Your task to perform on an android device: What's on my calendar tomorrow? Image 0: 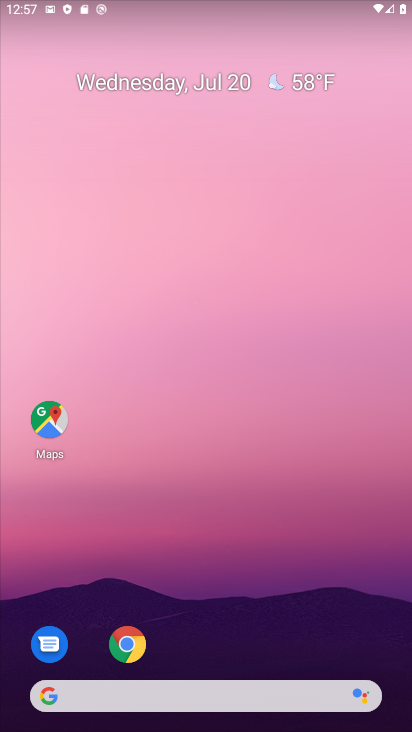
Step 0: drag from (193, 652) to (218, 35)
Your task to perform on an android device: What's on my calendar tomorrow? Image 1: 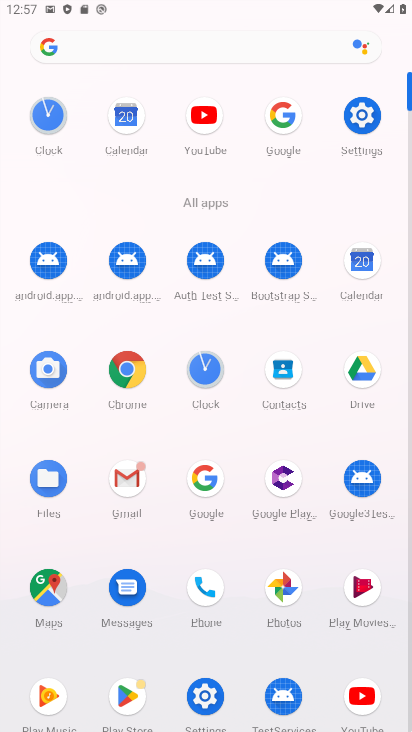
Step 1: click (363, 264)
Your task to perform on an android device: What's on my calendar tomorrow? Image 2: 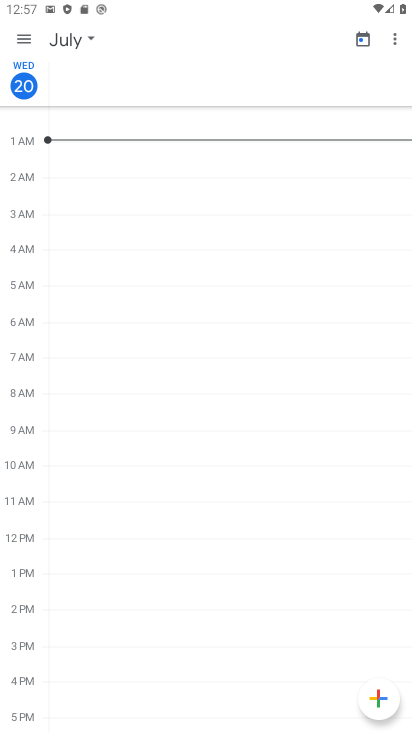
Step 2: click (81, 35)
Your task to perform on an android device: What's on my calendar tomorrow? Image 3: 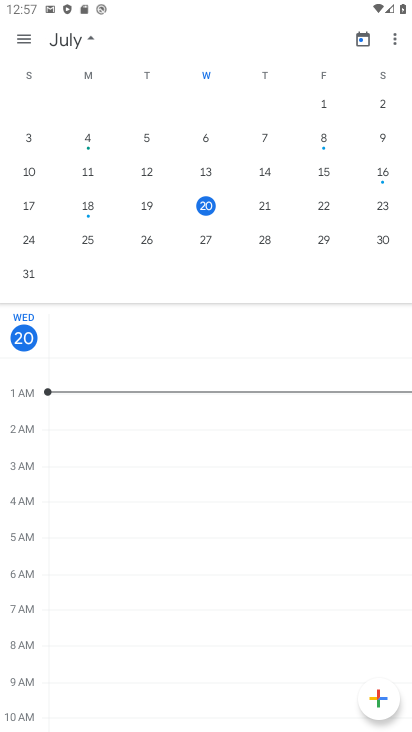
Step 3: click (23, 42)
Your task to perform on an android device: What's on my calendar tomorrow? Image 4: 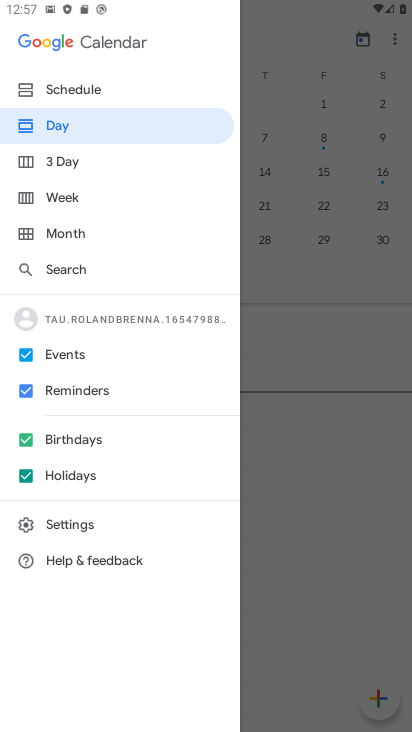
Step 4: click (58, 93)
Your task to perform on an android device: What's on my calendar tomorrow? Image 5: 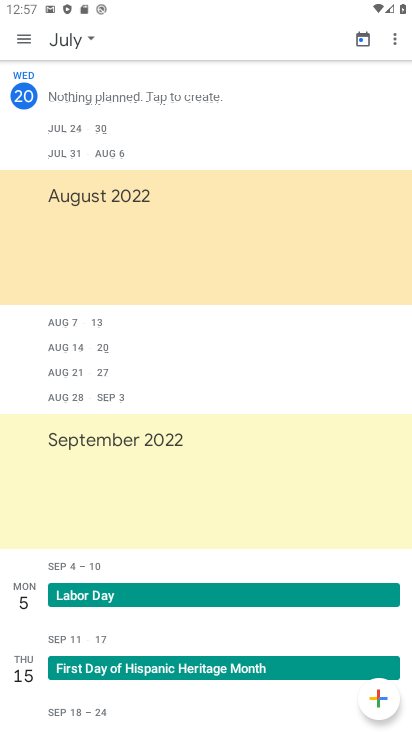
Step 5: click (84, 38)
Your task to perform on an android device: What's on my calendar tomorrow? Image 6: 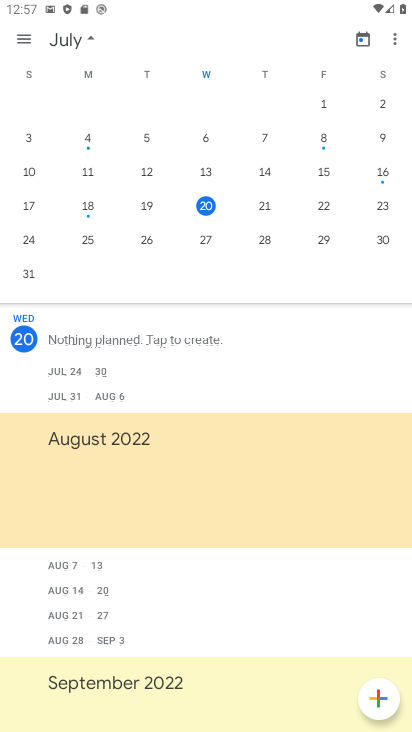
Step 6: click (251, 206)
Your task to perform on an android device: What's on my calendar tomorrow? Image 7: 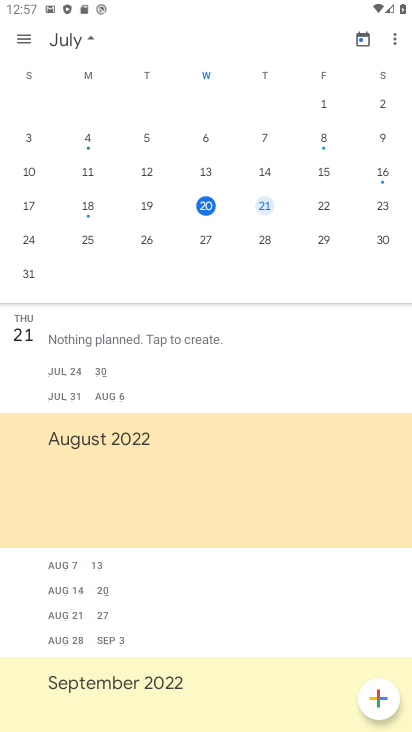
Step 7: task complete